Your task to perform on an android device: Go to battery settings Image 0: 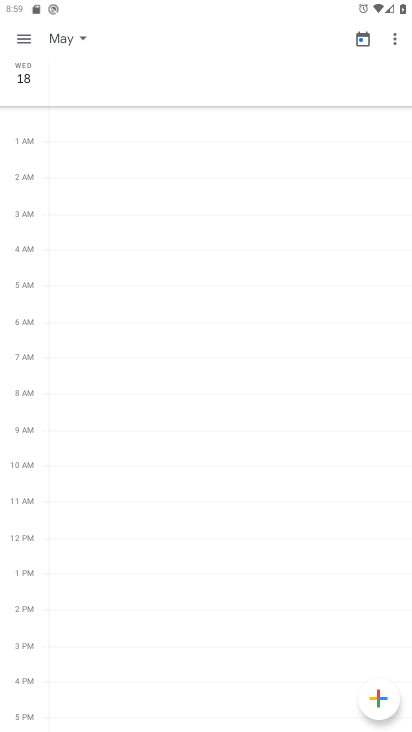
Step 0: press home button
Your task to perform on an android device: Go to battery settings Image 1: 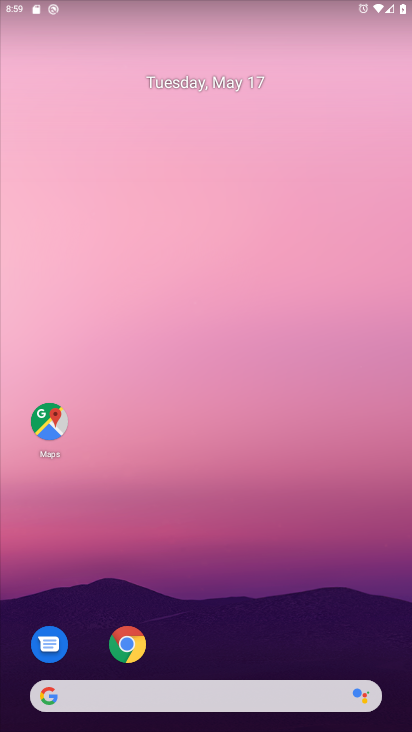
Step 1: drag from (211, 648) to (258, 63)
Your task to perform on an android device: Go to battery settings Image 2: 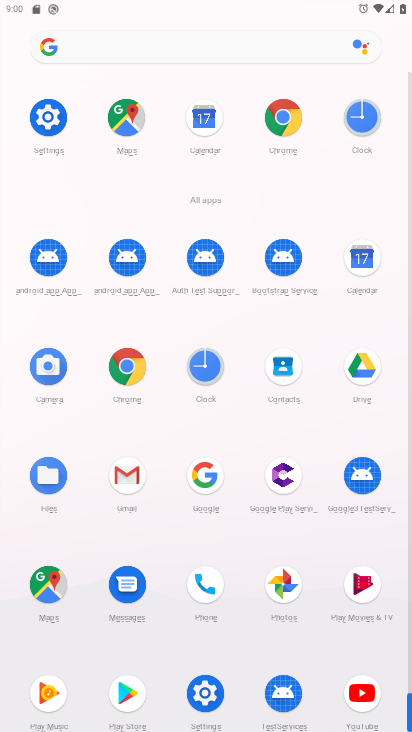
Step 2: click (47, 113)
Your task to perform on an android device: Go to battery settings Image 3: 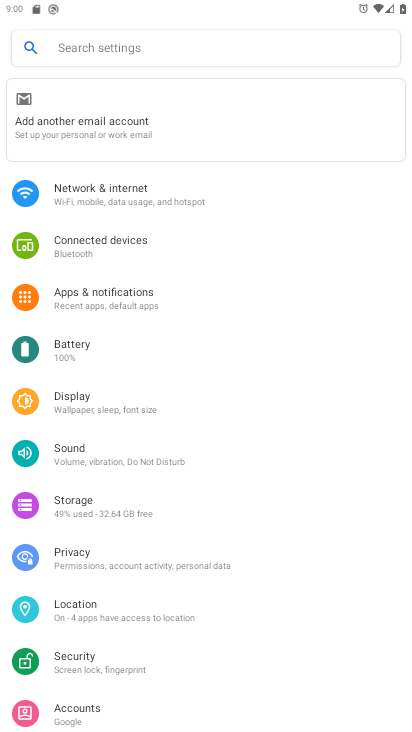
Step 3: click (99, 345)
Your task to perform on an android device: Go to battery settings Image 4: 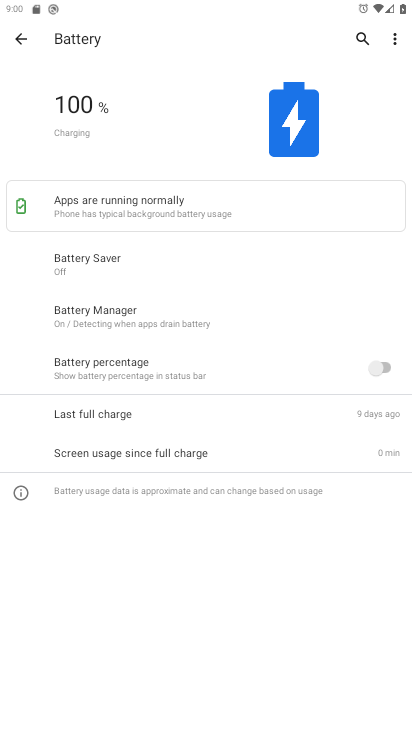
Step 4: task complete